Your task to perform on an android device: Show me recent news Image 0: 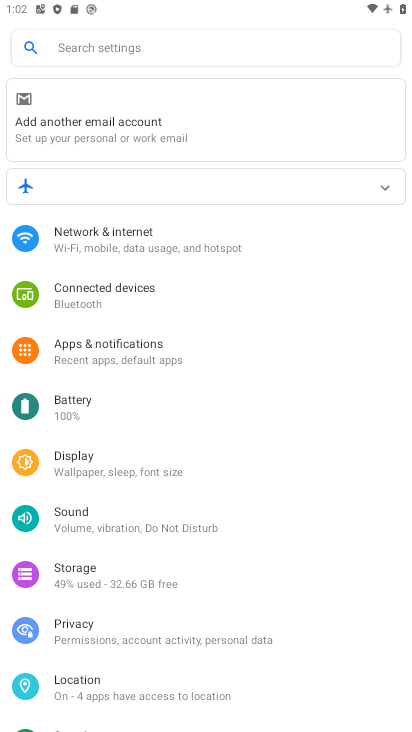
Step 0: press home button
Your task to perform on an android device: Show me recent news Image 1: 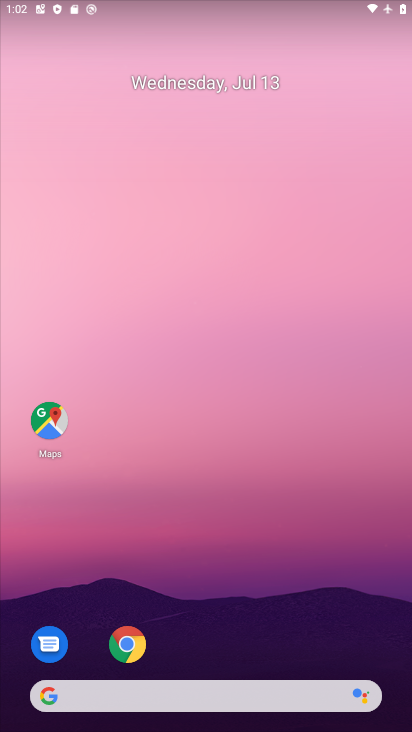
Step 1: drag from (304, 596) to (302, 36)
Your task to perform on an android device: Show me recent news Image 2: 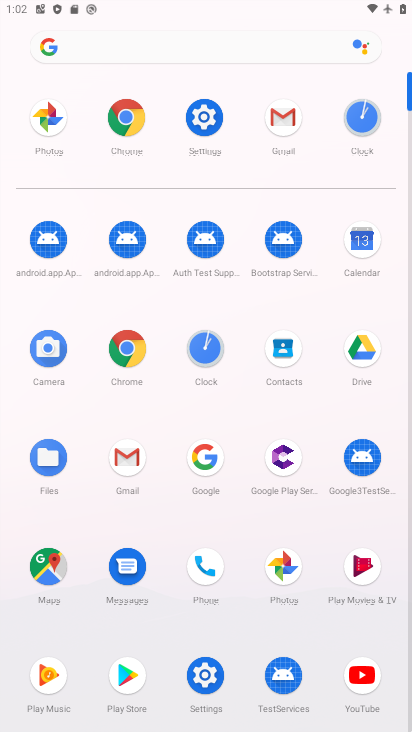
Step 2: click (121, 113)
Your task to perform on an android device: Show me recent news Image 3: 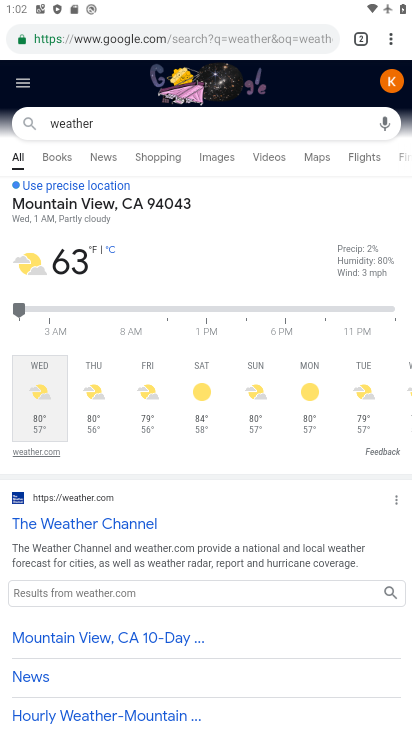
Step 3: click (212, 34)
Your task to perform on an android device: Show me recent news Image 4: 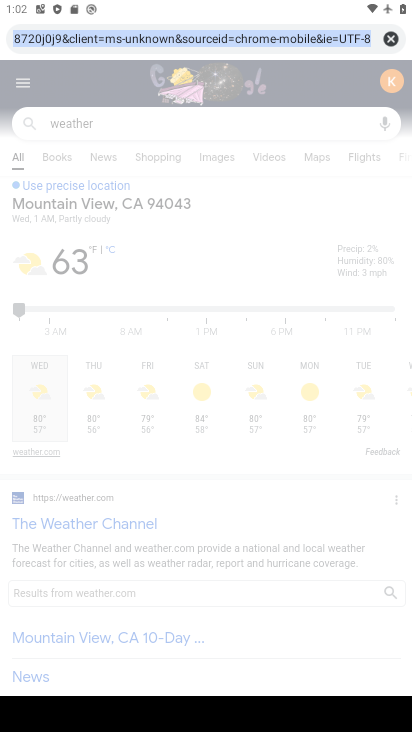
Step 4: type "news"
Your task to perform on an android device: Show me recent news Image 5: 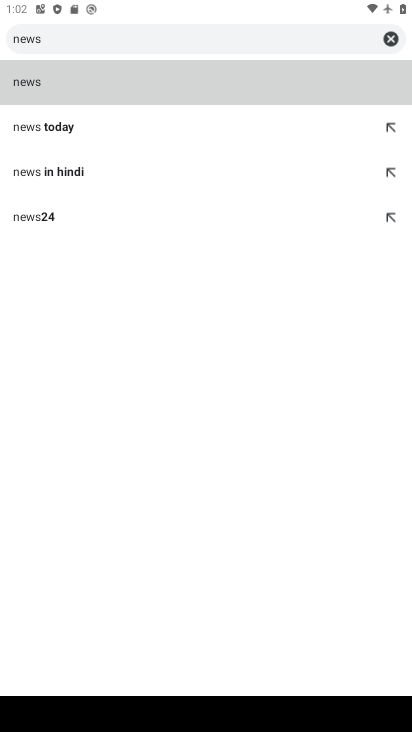
Step 5: click (32, 73)
Your task to perform on an android device: Show me recent news Image 6: 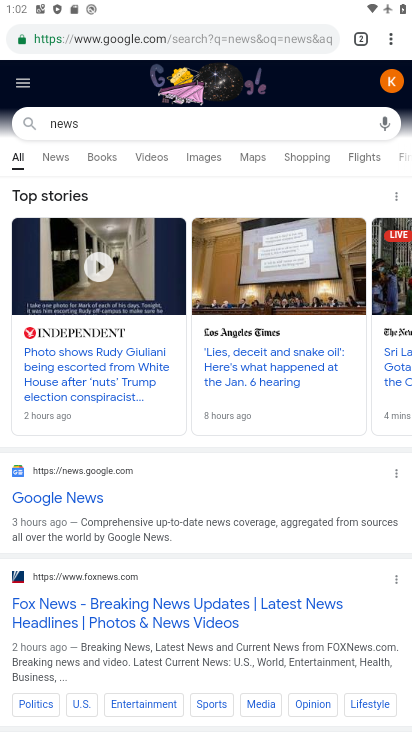
Step 6: click (84, 502)
Your task to perform on an android device: Show me recent news Image 7: 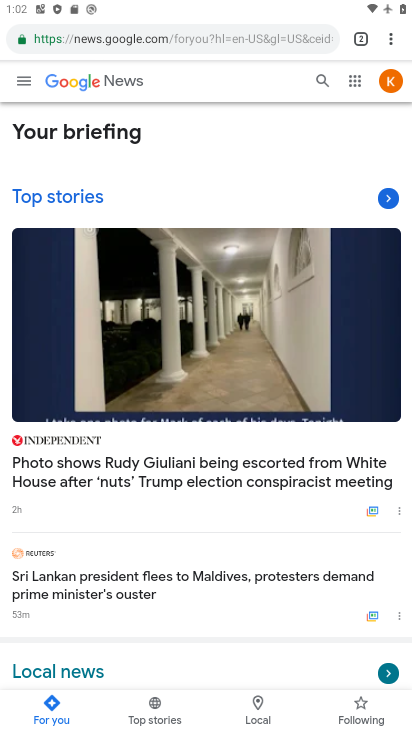
Step 7: task complete